Your task to perform on an android device: What's the weather going to be this weekend? Image 0: 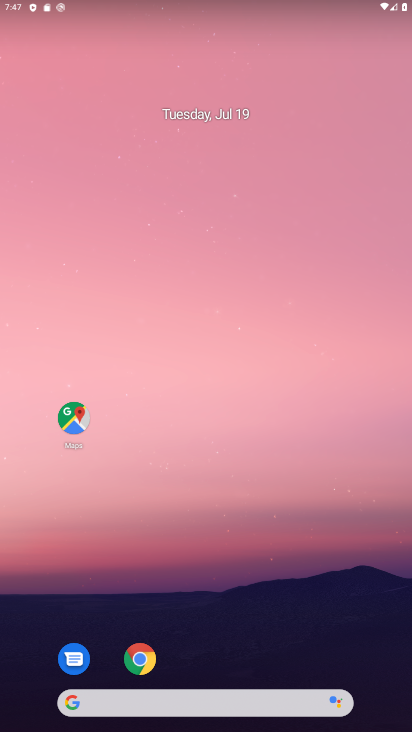
Step 0: drag from (348, 40) to (354, 0)
Your task to perform on an android device: What's the weather going to be this weekend? Image 1: 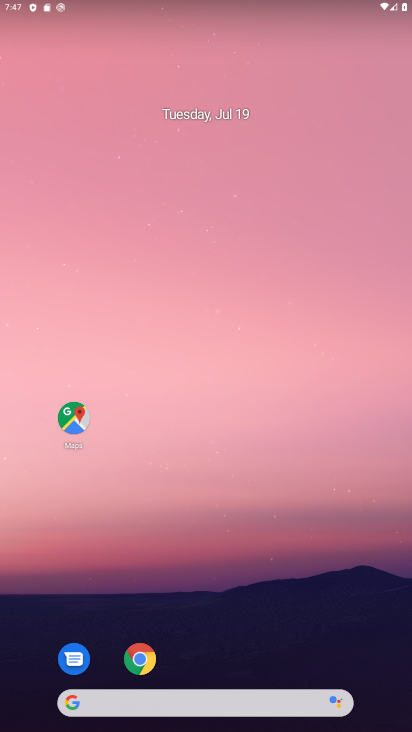
Step 1: drag from (263, 631) to (340, 69)
Your task to perform on an android device: What's the weather going to be this weekend? Image 2: 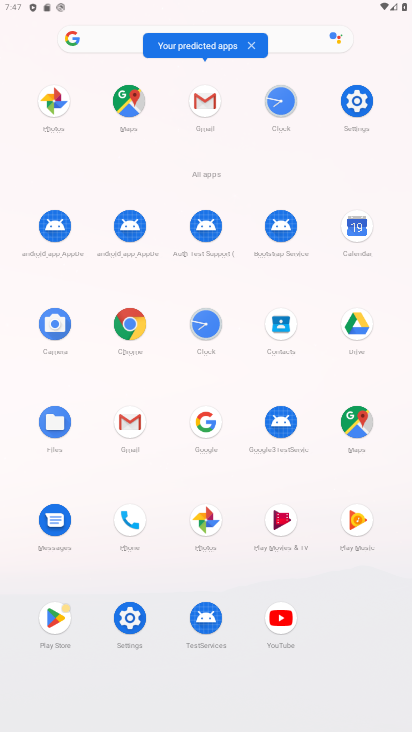
Step 2: click (134, 319)
Your task to perform on an android device: What's the weather going to be this weekend? Image 3: 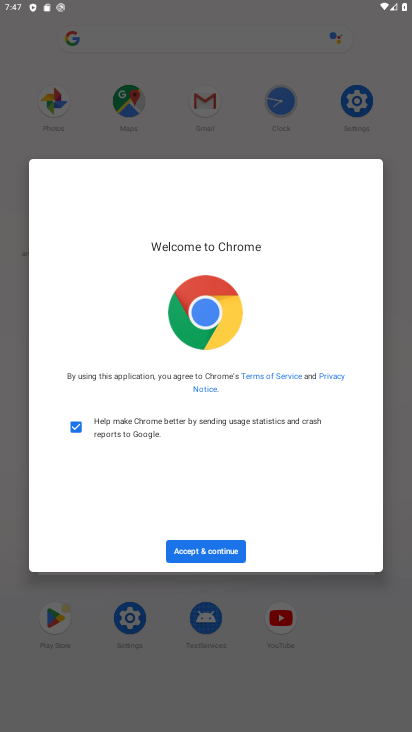
Step 3: click (221, 546)
Your task to perform on an android device: What's the weather going to be this weekend? Image 4: 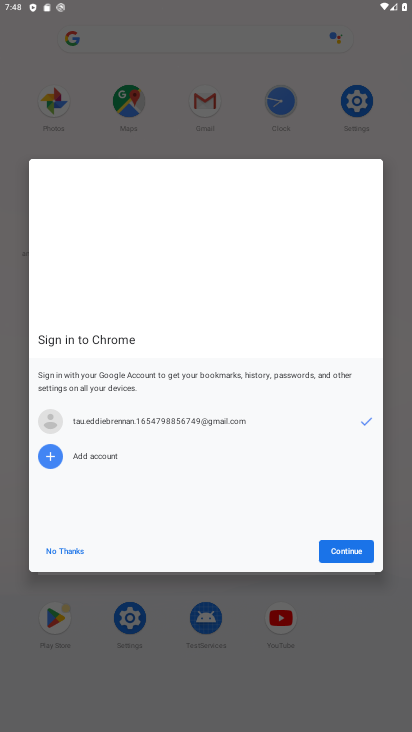
Step 4: click (338, 551)
Your task to perform on an android device: What's the weather going to be this weekend? Image 5: 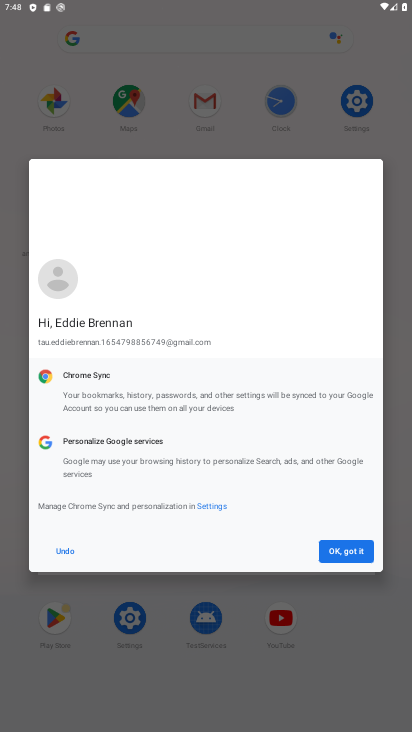
Step 5: click (338, 551)
Your task to perform on an android device: What's the weather going to be this weekend? Image 6: 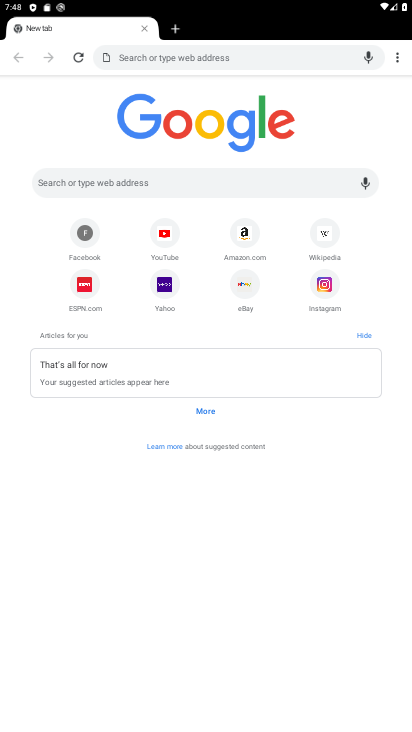
Step 6: click (135, 50)
Your task to perform on an android device: What's the weather going to be this weekend? Image 7: 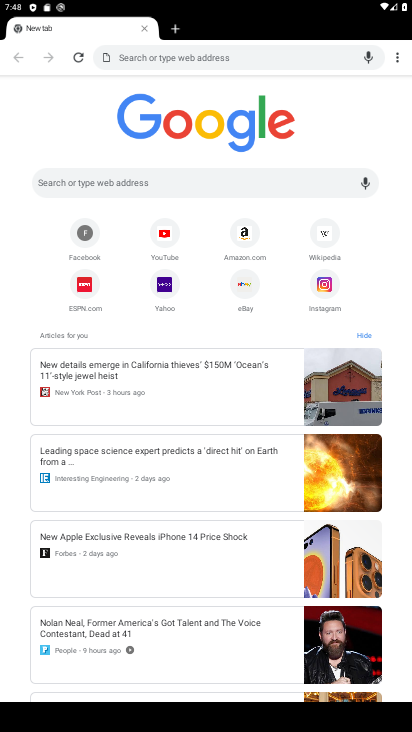
Step 7: click (125, 51)
Your task to perform on an android device: What's the weather going to be this weekend? Image 8: 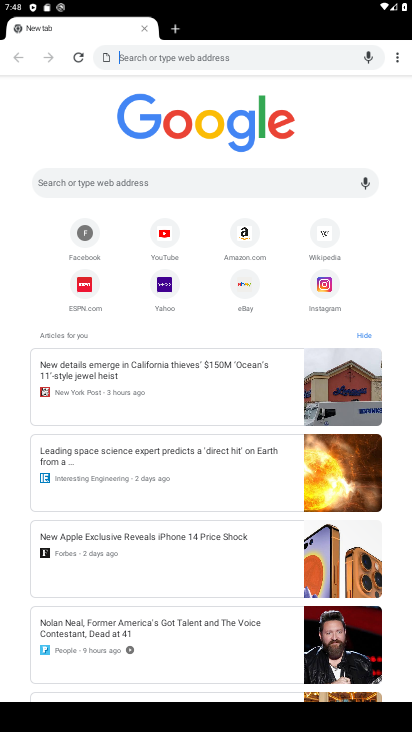
Step 8: click (222, 46)
Your task to perform on an android device: What's the weather going to be this weekend? Image 9: 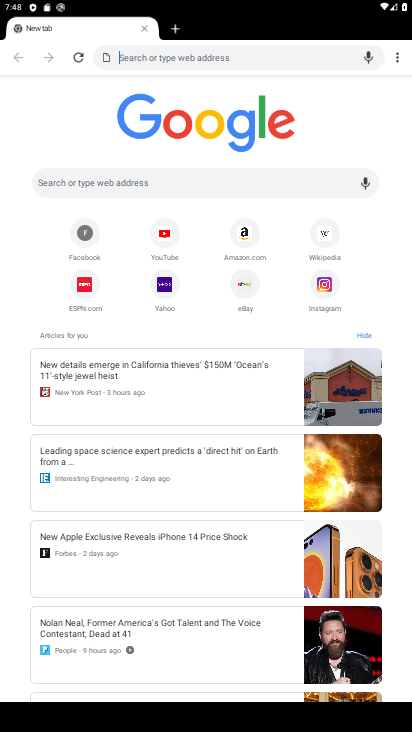
Step 9: type "What's the weather going to be this weekend?"
Your task to perform on an android device: What's the weather going to be this weekend? Image 10: 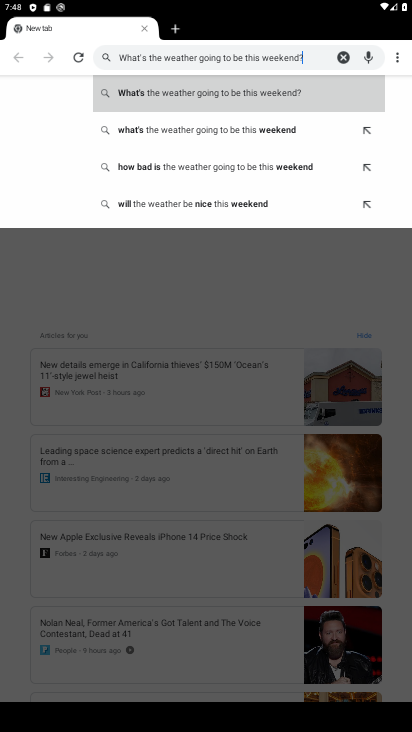
Step 10: click (199, 91)
Your task to perform on an android device: What's the weather going to be this weekend? Image 11: 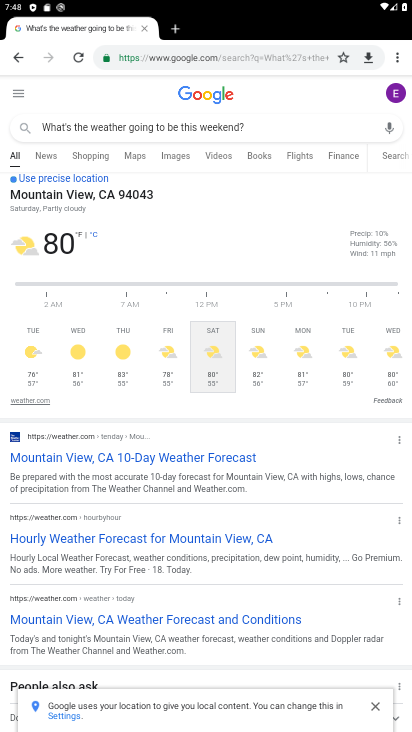
Step 11: task complete